Your task to perform on an android device: toggle improve location accuracy Image 0: 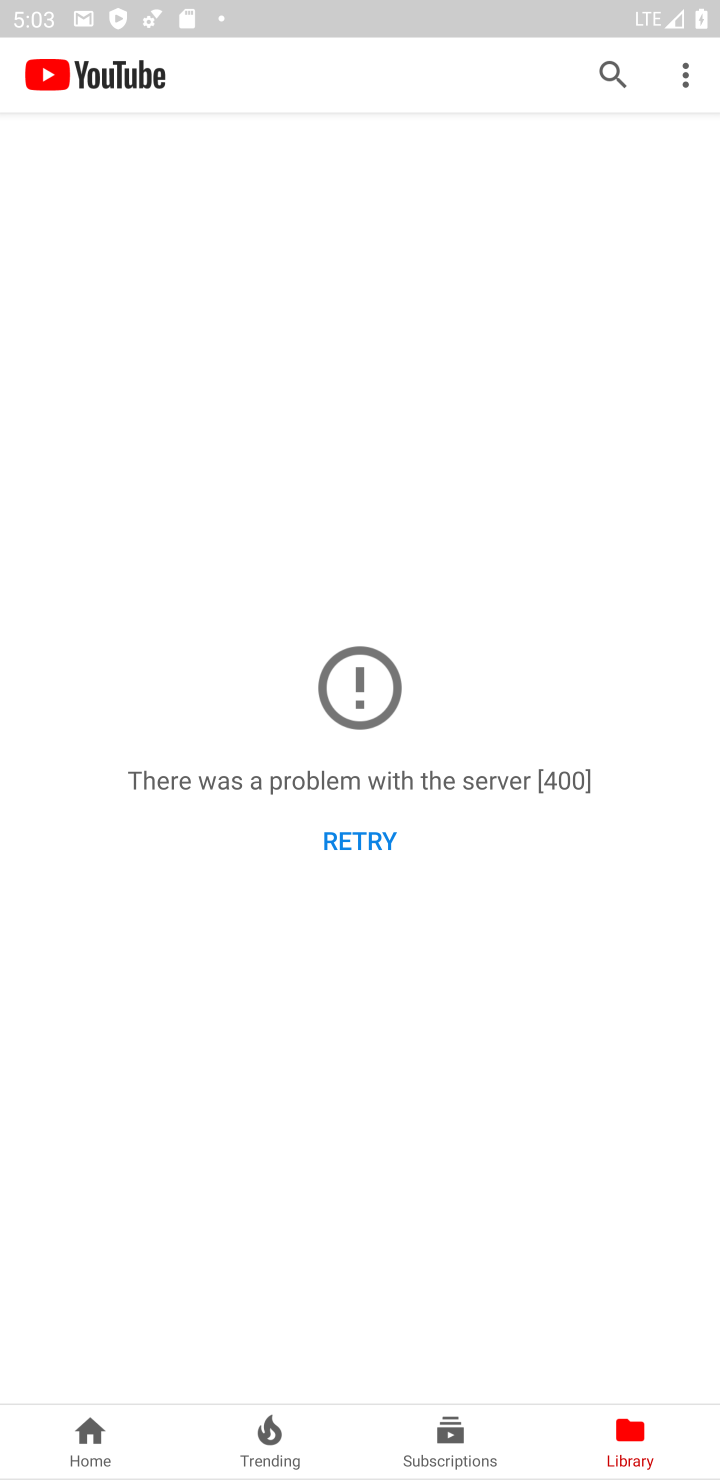
Step 0: press back button
Your task to perform on an android device: toggle improve location accuracy Image 1: 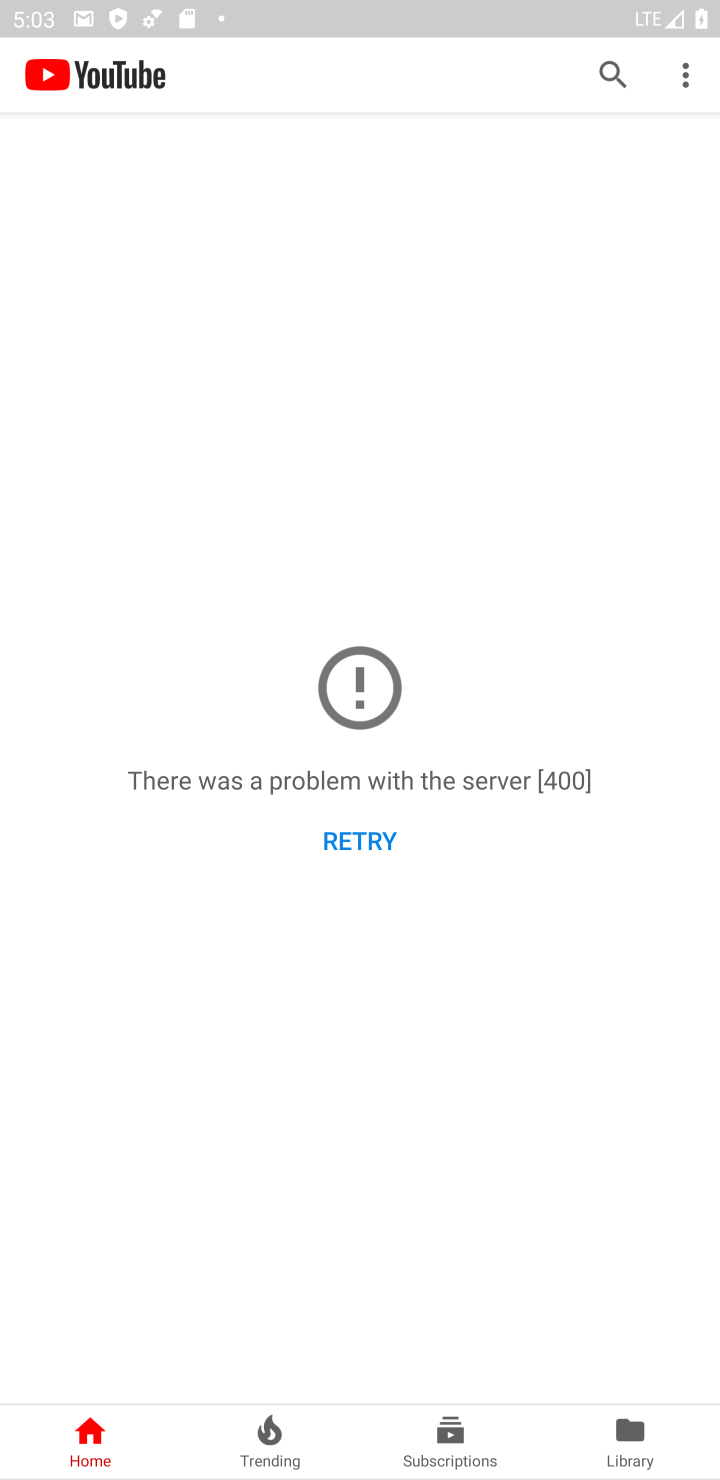
Step 1: press home button
Your task to perform on an android device: toggle improve location accuracy Image 2: 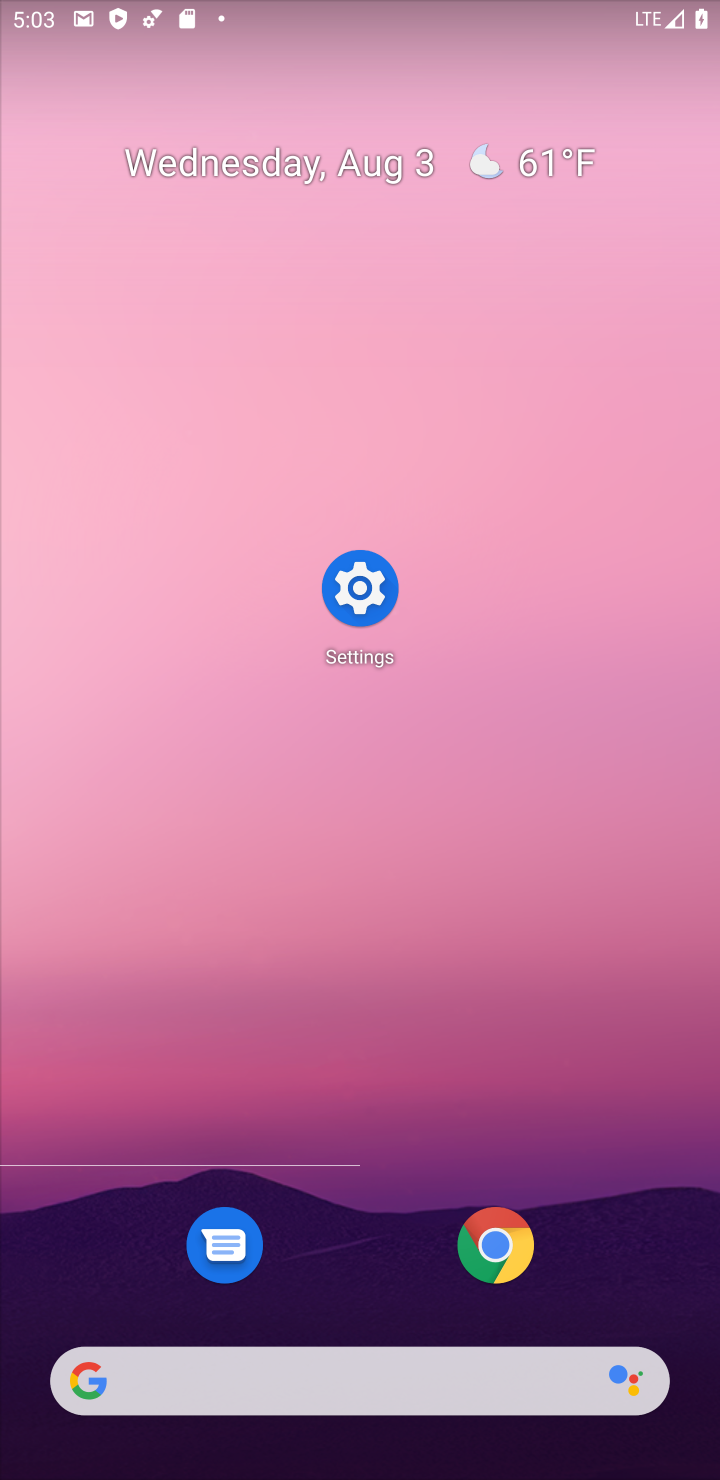
Step 2: click (351, 569)
Your task to perform on an android device: toggle improve location accuracy Image 3: 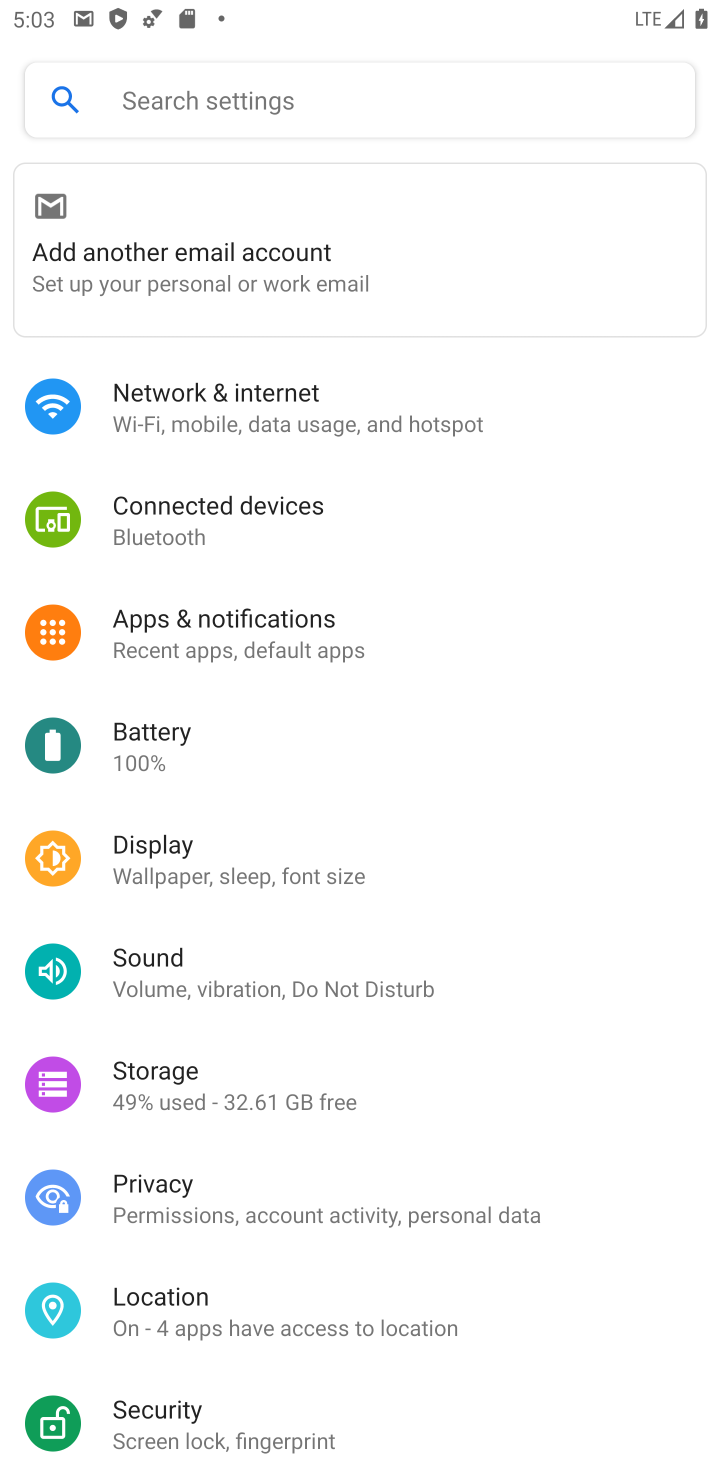
Step 3: click (192, 1296)
Your task to perform on an android device: toggle improve location accuracy Image 4: 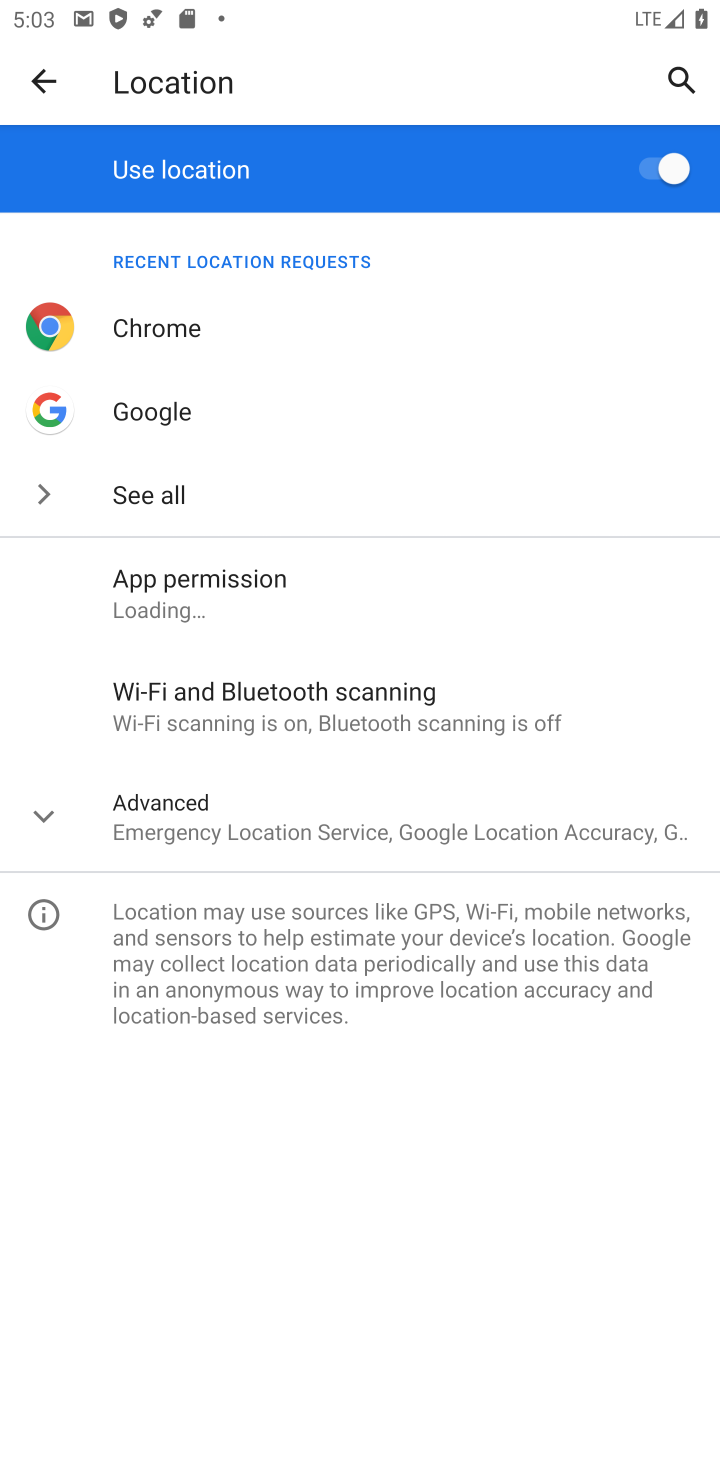
Step 4: click (187, 793)
Your task to perform on an android device: toggle improve location accuracy Image 5: 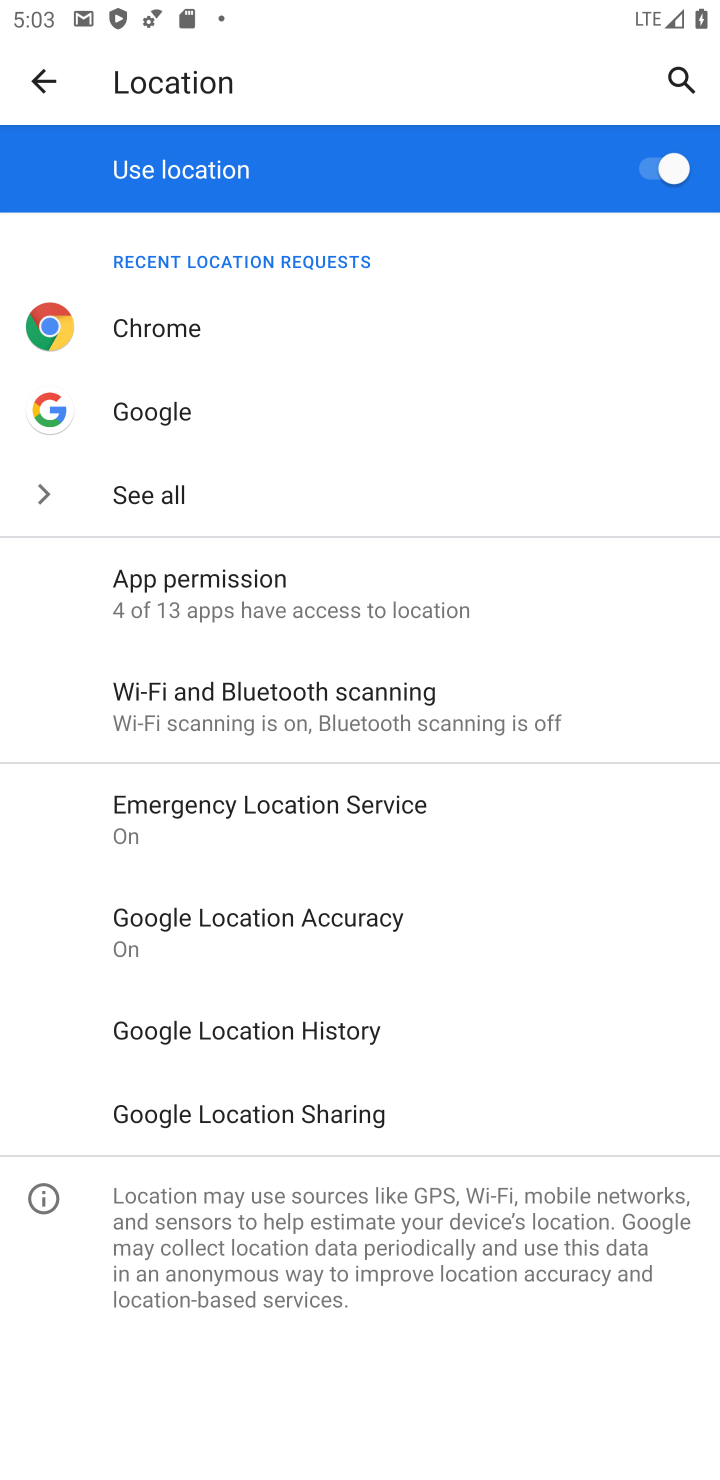
Step 5: click (304, 921)
Your task to perform on an android device: toggle improve location accuracy Image 6: 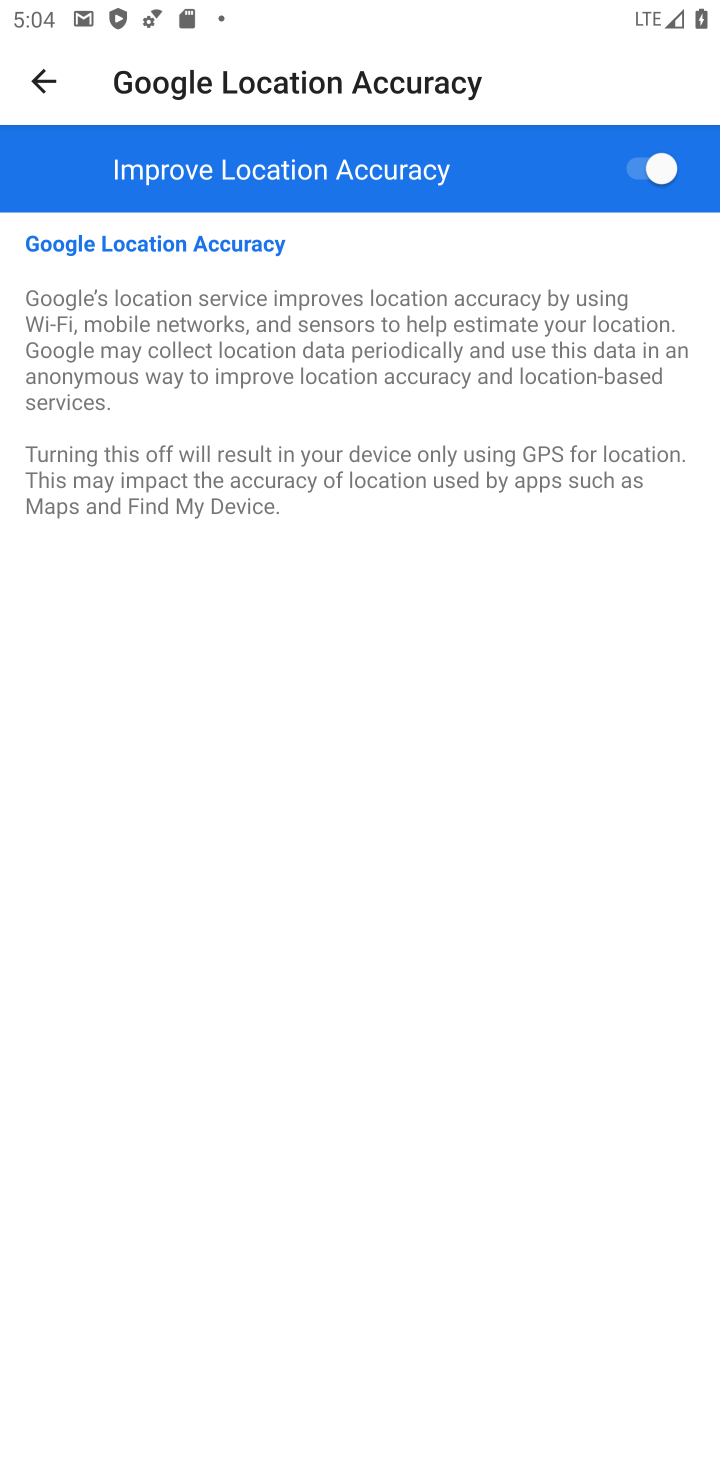
Step 6: click (654, 167)
Your task to perform on an android device: toggle improve location accuracy Image 7: 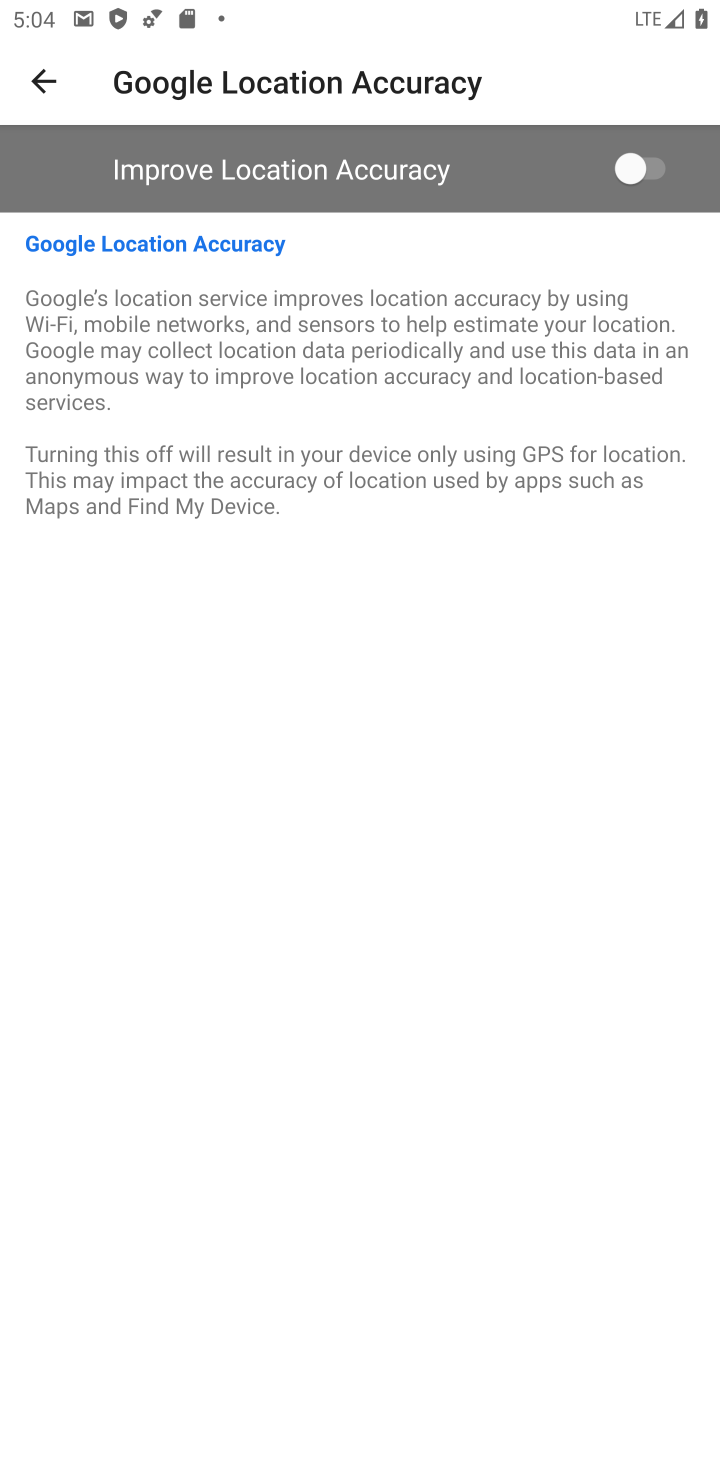
Step 7: task complete